Your task to perform on an android device: Open internet settings Image 0: 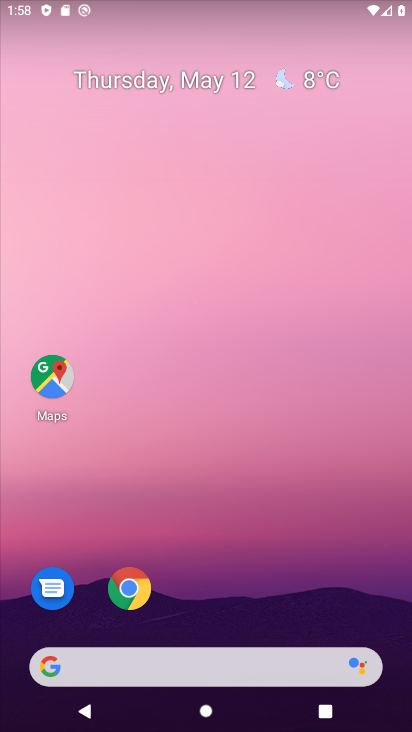
Step 0: drag from (231, 586) to (258, 178)
Your task to perform on an android device: Open internet settings Image 1: 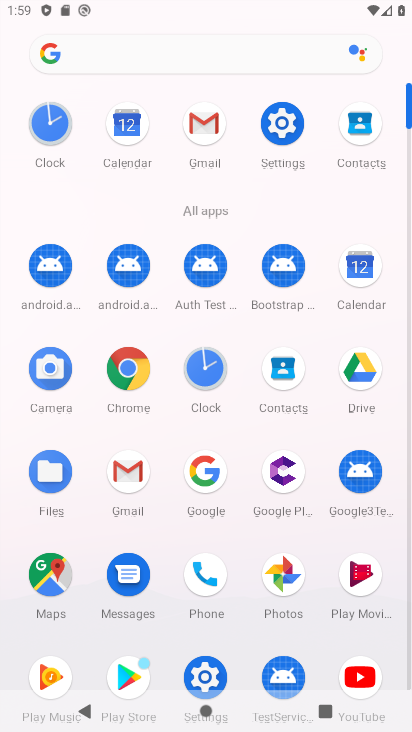
Step 1: click (285, 137)
Your task to perform on an android device: Open internet settings Image 2: 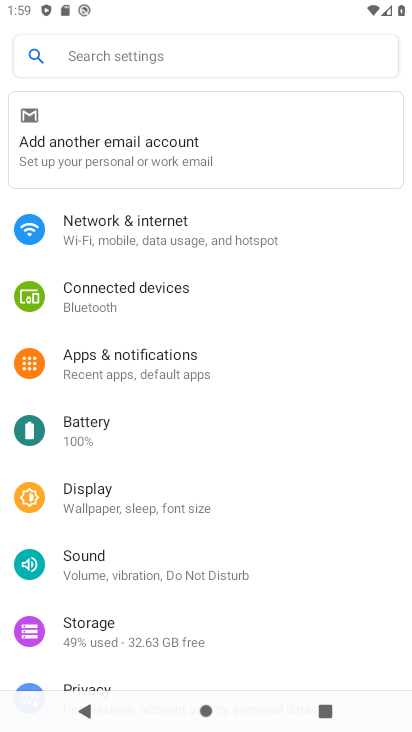
Step 2: click (253, 142)
Your task to perform on an android device: Open internet settings Image 3: 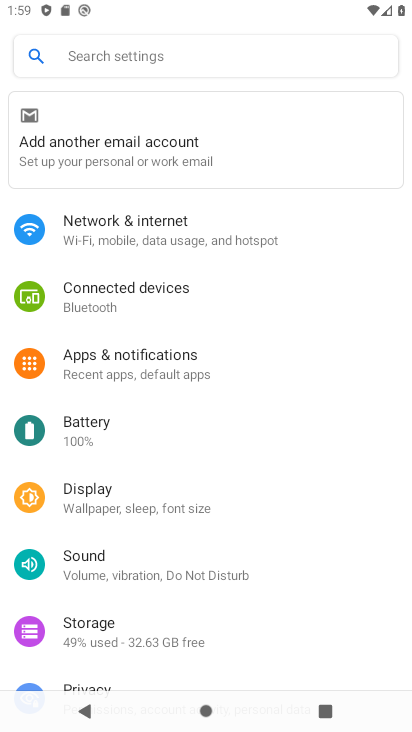
Step 3: click (237, 220)
Your task to perform on an android device: Open internet settings Image 4: 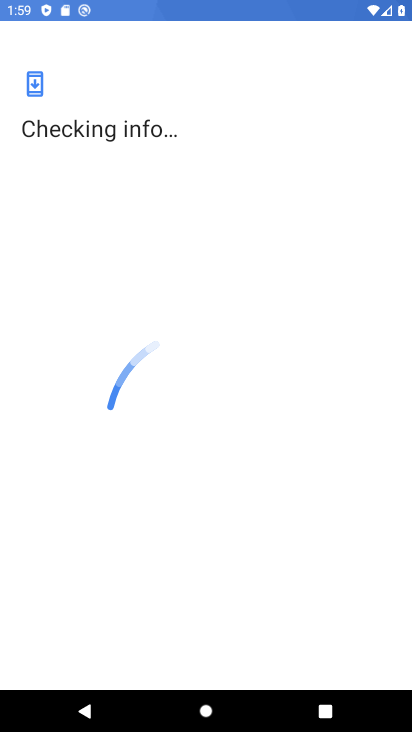
Step 4: click (75, 714)
Your task to perform on an android device: Open internet settings Image 5: 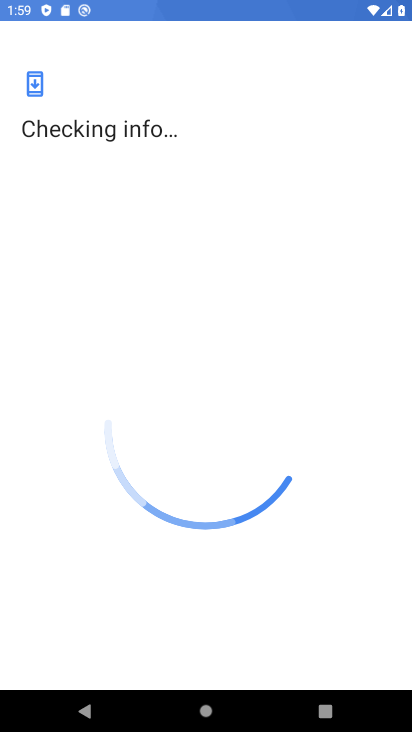
Step 5: click (80, 719)
Your task to perform on an android device: Open internet settings Image 6: 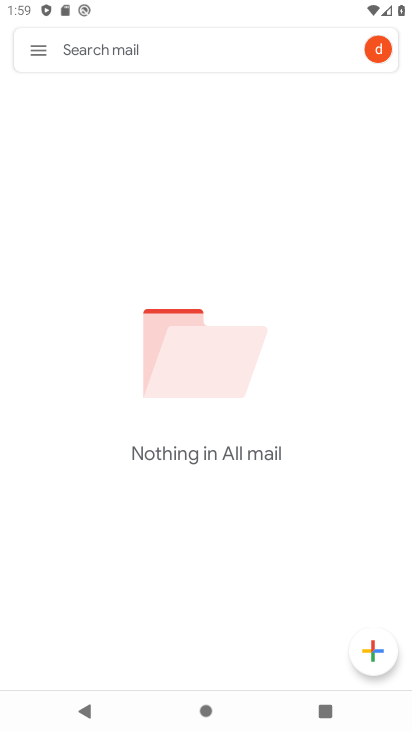
Step 6: click (80, 719)
Your task to perform on an android device: Open internet settings Image 7: 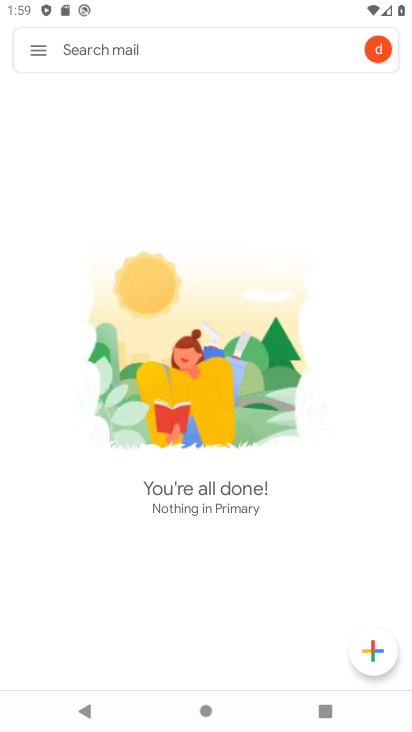
Step 7: click (88, 708)
Your task to perform on an android device: Open internet settings Image 8: 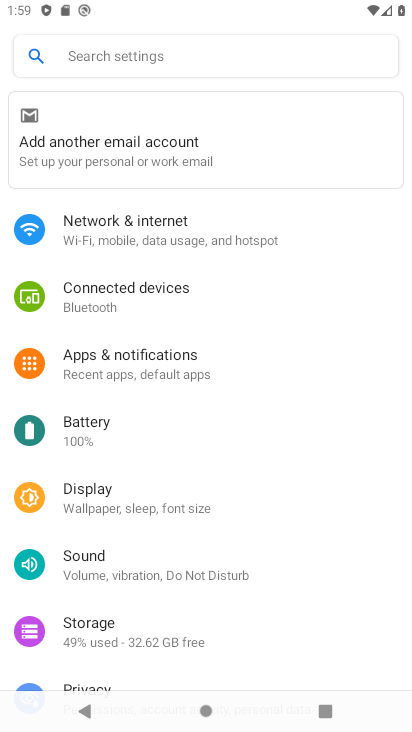
Step 8: click (245, 247)
Your task to perform on an android device: Open internet settings Image 9: 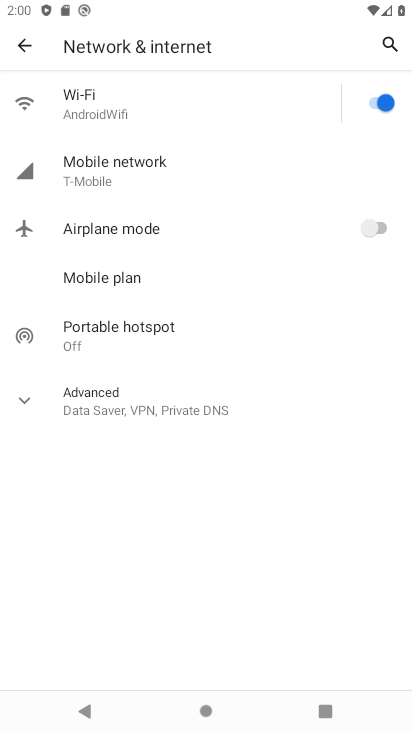
Step 9: task complete